Your task to perform on an android device: change keyboard looks Image 0: 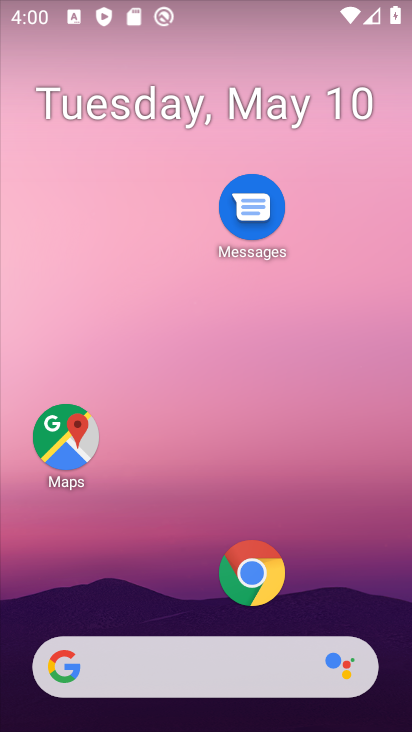
Step 0: drag from (167, 614) to (153, 191)
Your task to perform on an android device: change keyboard looks Image 1: 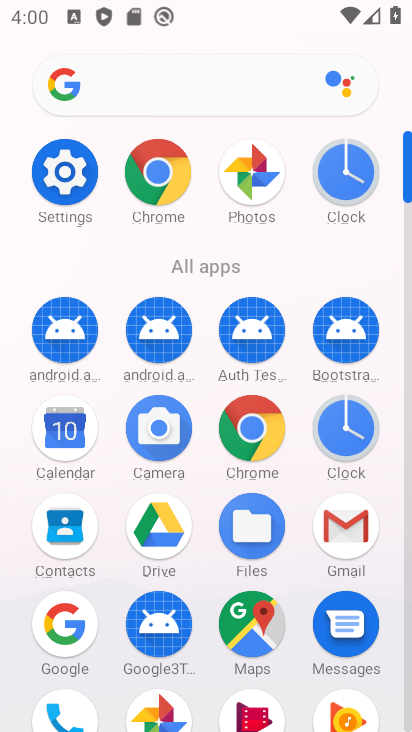
Step 1: click (83, 196)
Your task to perform on an android device: change keyboard looks Image 2: 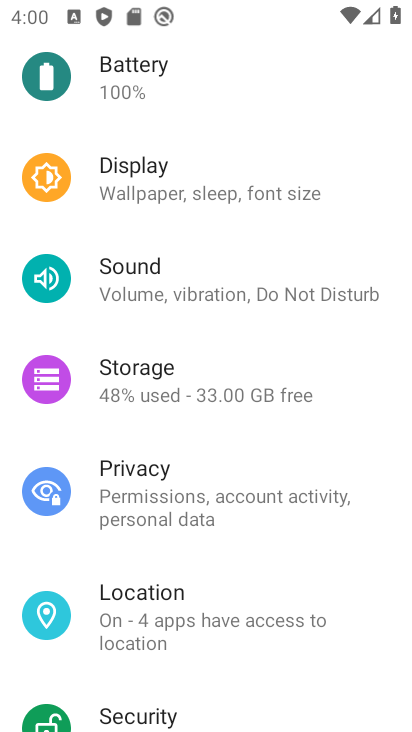
Step 2: drag from (201, 685) to (190, 367)
Your task to perform on an android device: change keyboard looks Image 3: 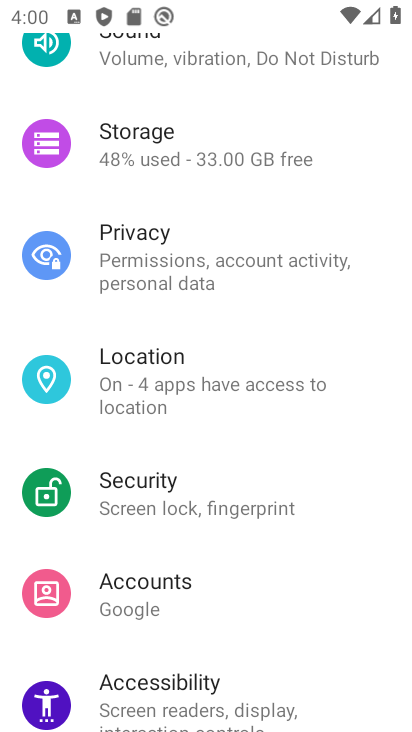
Step 3: drag from (197, 647) to (205, 364)
Your task to perform on an android device: change keyboard looks Image 4: 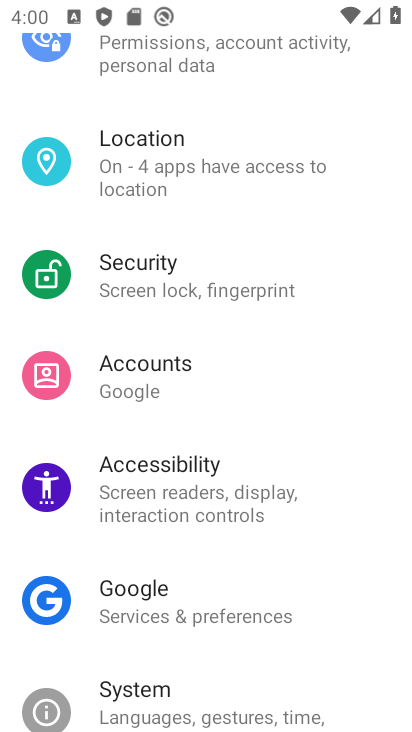
Step 4: click (216, 681)
Your task to perform on an android device: change keyboard looks Image 5: 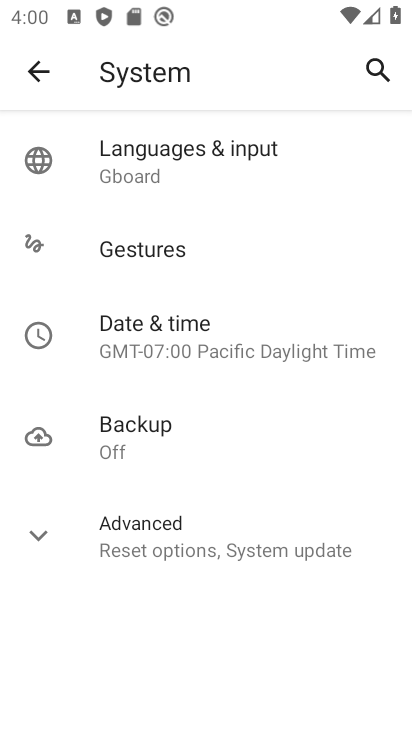
Step 5: click (182, 182)
Your task to perform on an android device: change keyboard looks Image 6: 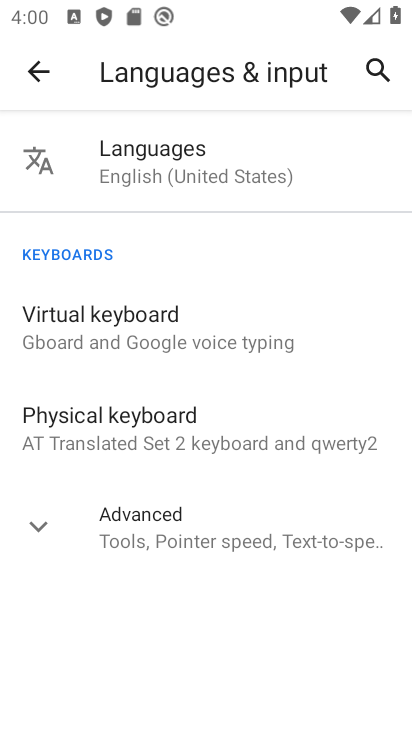
Step 6: click (171, 328)
Your task to perform on an android device: change keyboard looks Image 7: 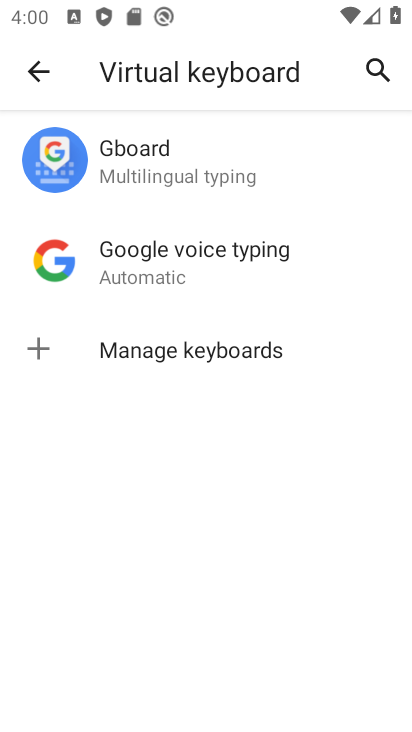
Step 7: click (166, 199)
Your task to perform on an android device: change keyboard looks Image 8: 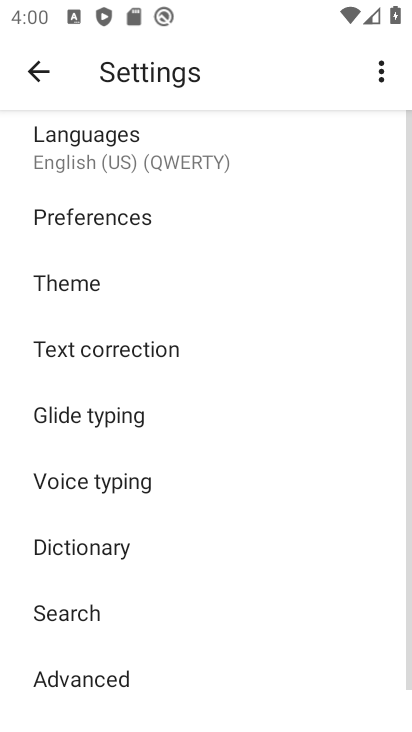
Step 8: click (159, 276)
Your task to perform on an android device: change keyboard looks Image 9: 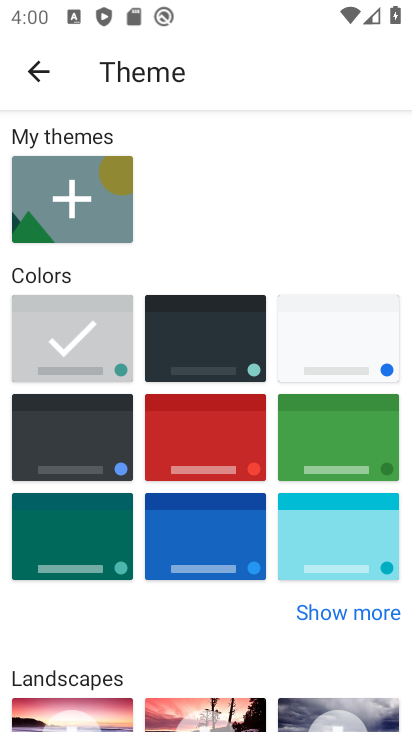
Step 9: click (339, 330)
Your task to perform on an android device: change keyboard looks Image 10: 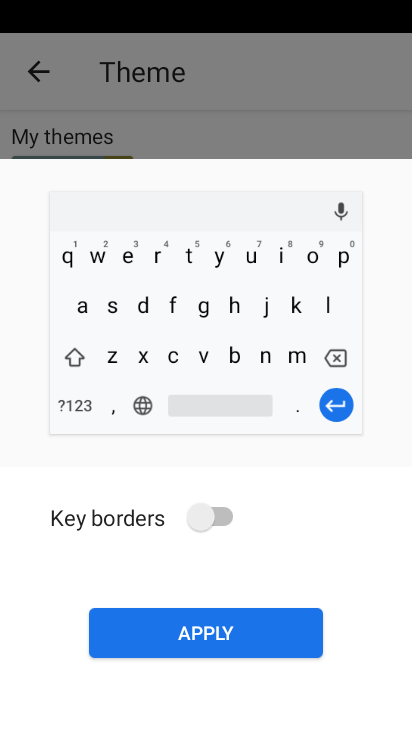
Step 10: click (224, 620)
Your task to perform on an android device: change keyboard looks Image 11: 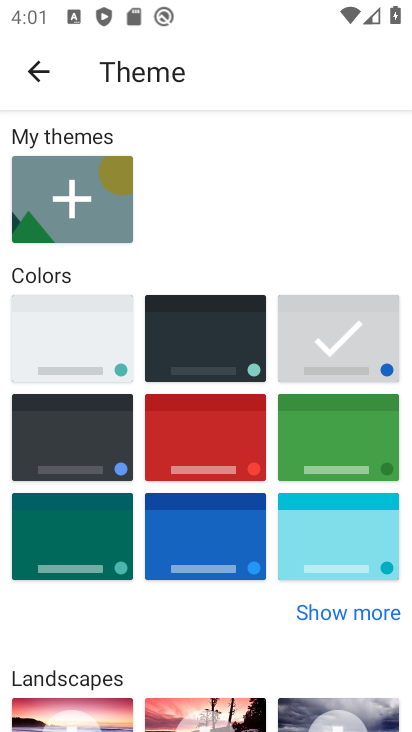
Step 11: task complete